Your task to perform on an android device: open device folders in google photos Image 0: 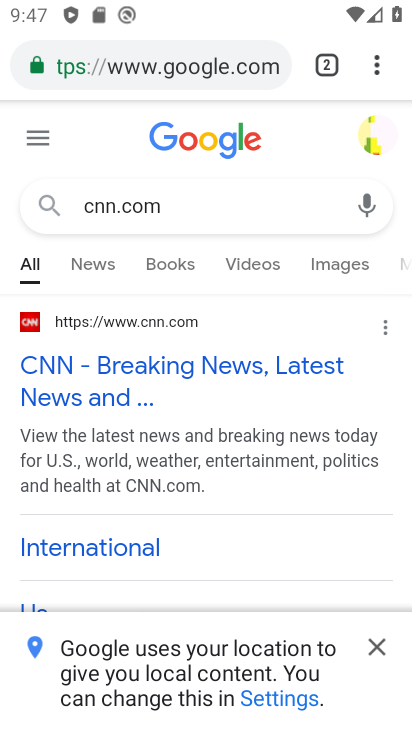
Step 0: press home button
Your task to perform on an android device: open device folders in google photos Image 1: 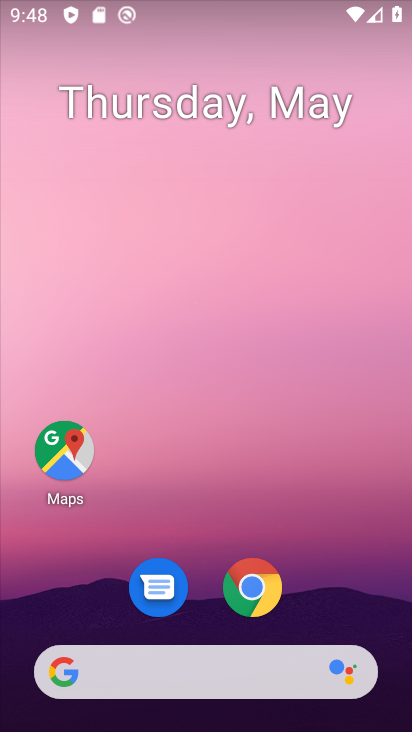
Step 1: drag from (319, 586) to (229, 45)
Your task to perform on an android device: open device folders in google photos Image 2: 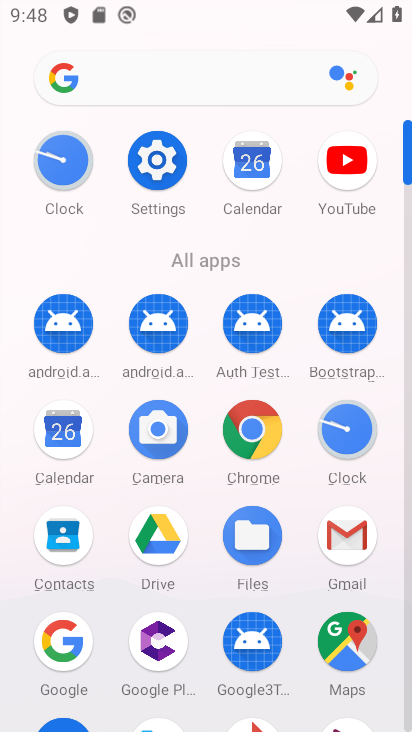
Step 2: drag from (298, 658) to (278, 199)
Your task to perform on an android device: open device folders in google photos Image 3: 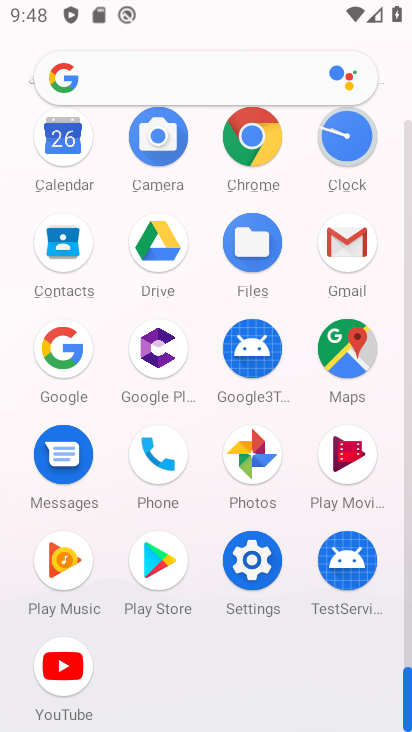
Step 3: click (247, 447)
Your task to perform on an android device: open device folders in google photos Image 4: 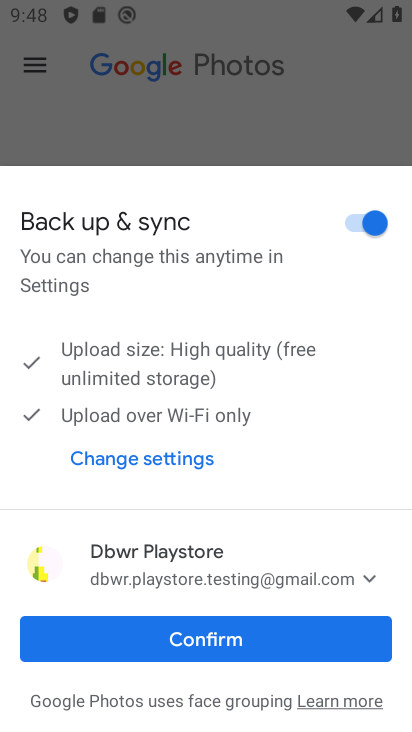
Step 4: click (169, 631)
Your task to perform on an android device: open device folders in google photos Image 5: 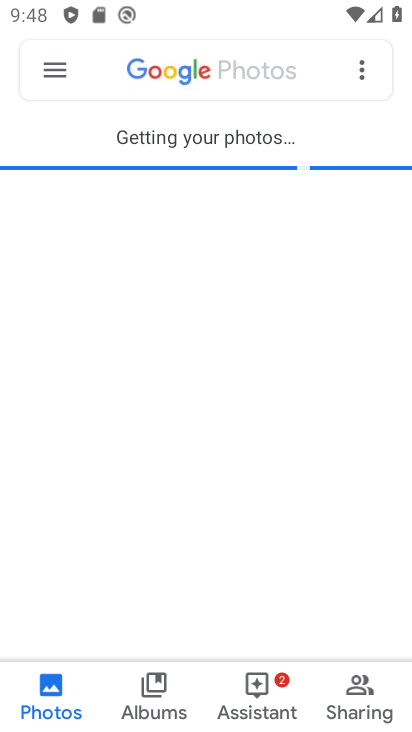
Step 5: click (56, 70)
Your task to perform on an android device: open device folders in google photos Image 6: 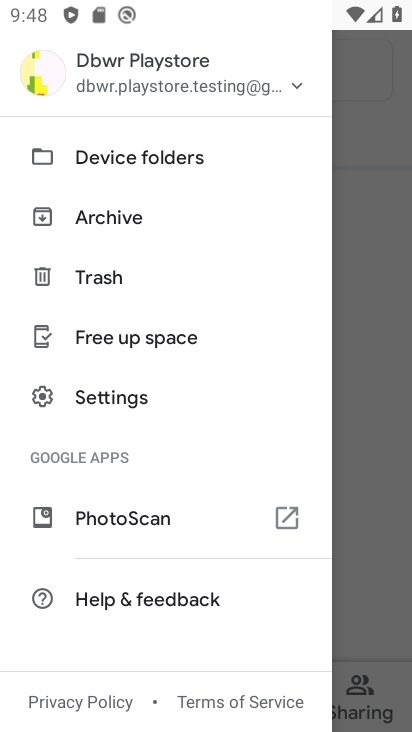
Step 6: click (104, 160)
Your task to perform on an android device: open device folders in google photos Image 7: 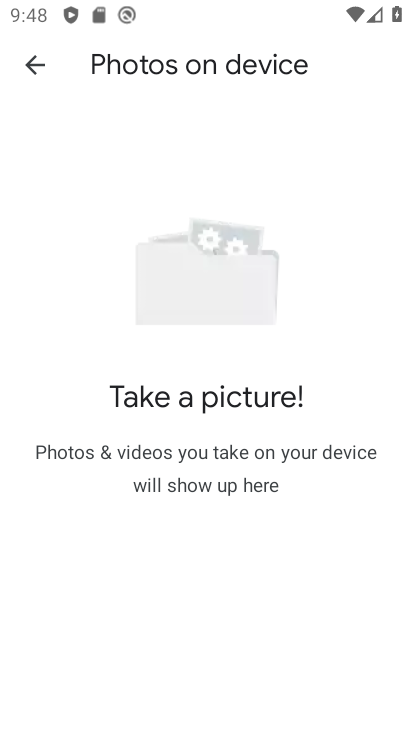
Step 7: task complete